Your task to perform on an android device: add a contact in the contacts app Image 0: 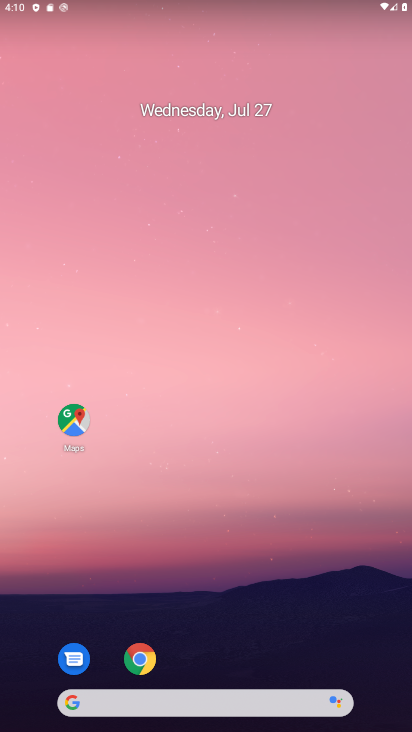
Step 0: drag from (189, 651) to (247, 191)
Your task to perform on an android device: add a contact in the contacts app Image 1: 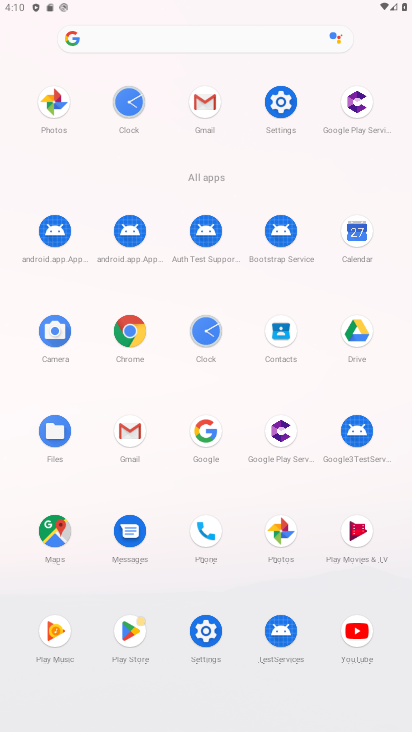
Step 1: click (281, 336)
Your task to perform on an android device: add a contact in the contacts app Image 2: 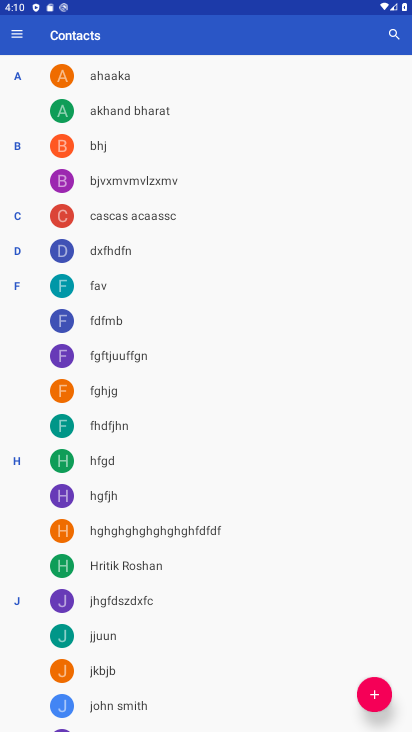
Step 2: click (365, 700)
Your task to perform on an android device: add a contact in the contacts app Image 3: 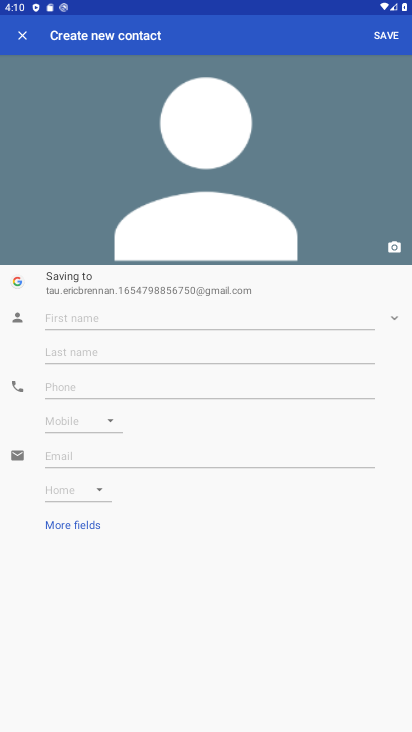
Step 3: click (246, 316)
Your task to perform on an android device: add a contact in the contacts app Image 4: 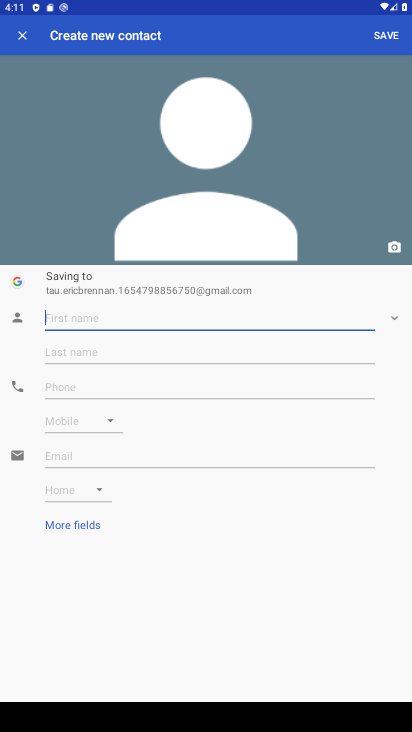
Step 4: type "abhijeet"
Your task to perform on an android device: add a contact in the contacts app Image 5: 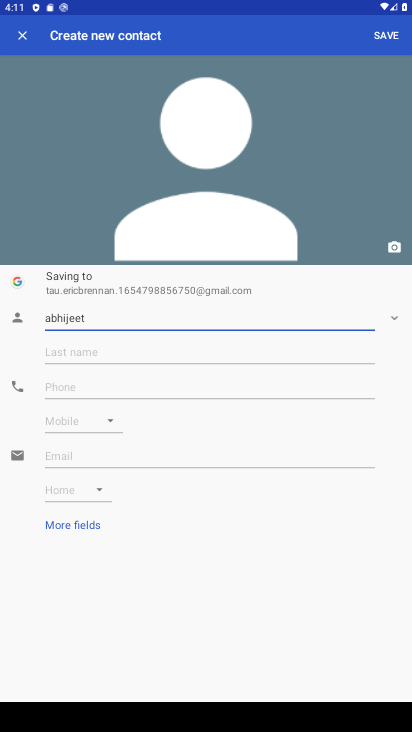
Step 5: click (310, 379)
Your task to perform on an android device: add a contact in the contacts app Image 6: 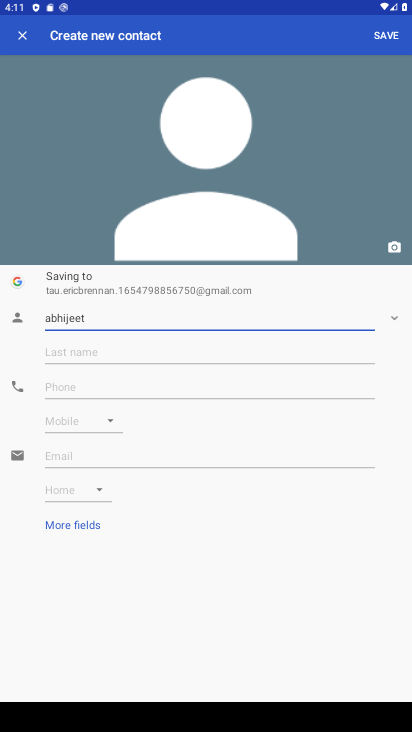
Step 6: click (310, 379)
Your task to perform on an android device: add a contact in the contacts app Image 7: 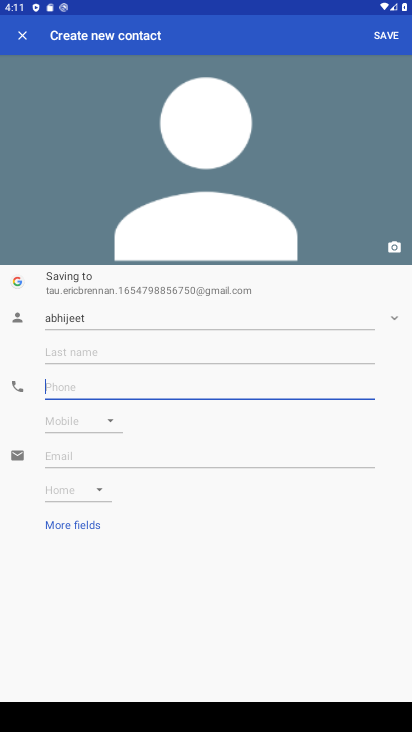
Step 7: click (310, 379)
Your task to perform on an android device: add a contact in the contacts app Image 8: 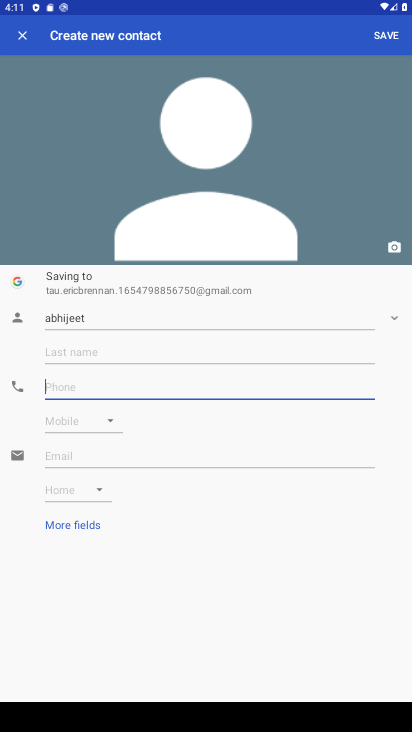
Step 8: click (310, 379)
Your task to perform on an android device: add a contact in the contacts app Image 9: 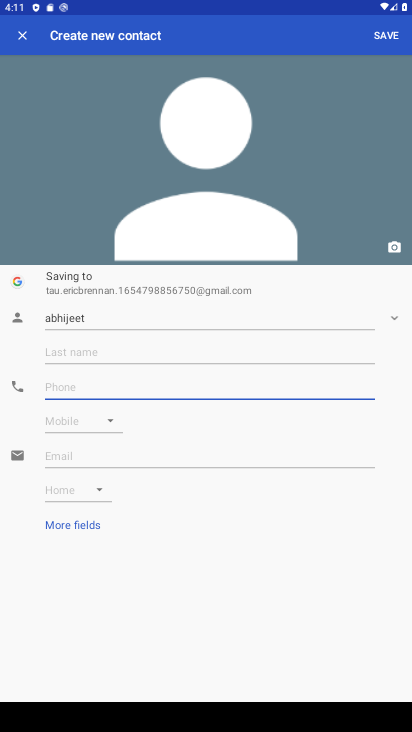
Step 9: click (318, 358)
Your task to perform on an android device: add a contact in the contacts app Image 10: 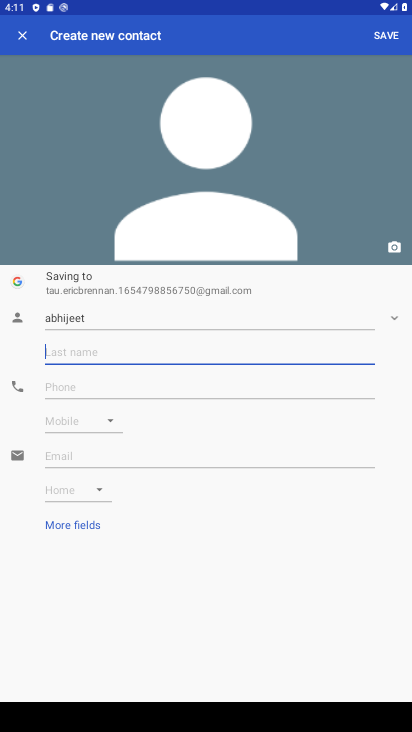
Step 10: type "985677455"
Your task to perform on an android device: add a contact in the contacts app Image 11: 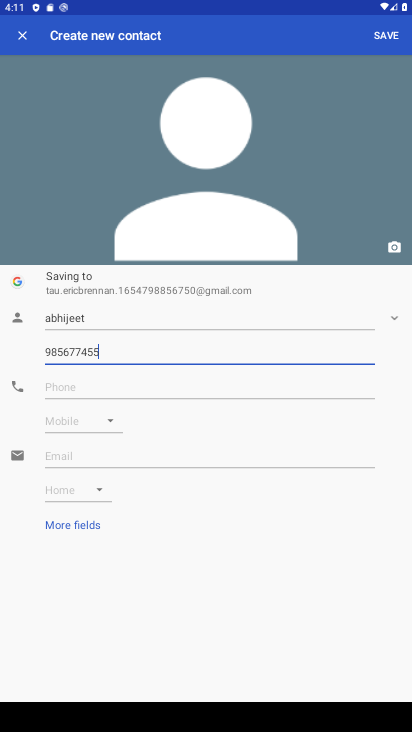
Step 11: click (388, 35)
Your task to perform on an android device: add a contact in the contacts app Image 12: 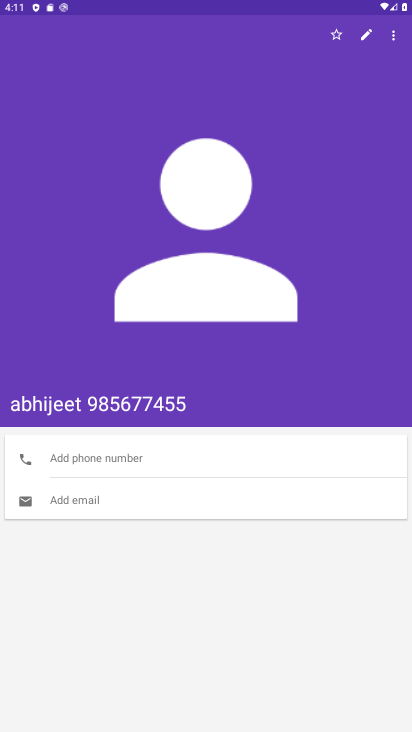
Step 12: click (270, 442)
Your task to perform on an android device: add a contact in the contacts app Image 13: 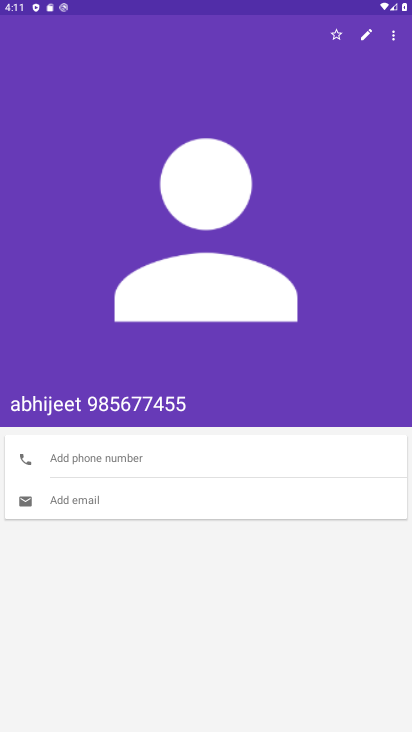
Step 13: click (270, 442)
Your task to perform on an android device: add a contact in the contacts app Image 14: 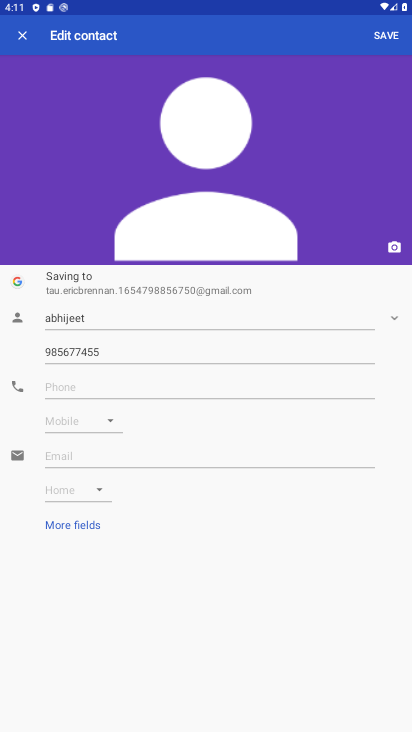
Step 14: click (155, 382)
Your task to perform on an android device: add a contact in the contacts app Image 15: 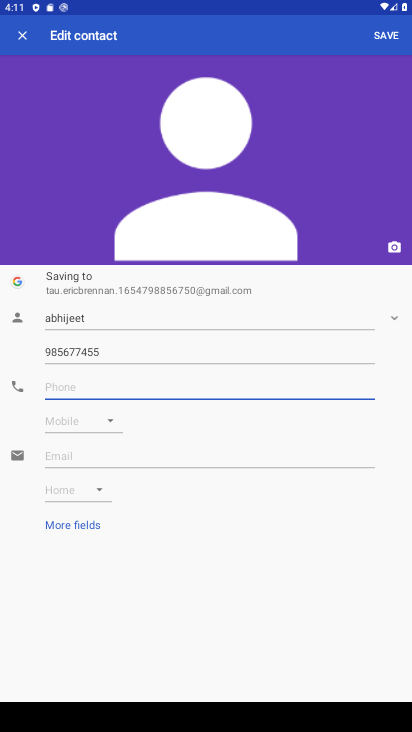
Step 15: click (154, 347)
Your task to perform on an android device: add a contact in the contacts app Image 16: 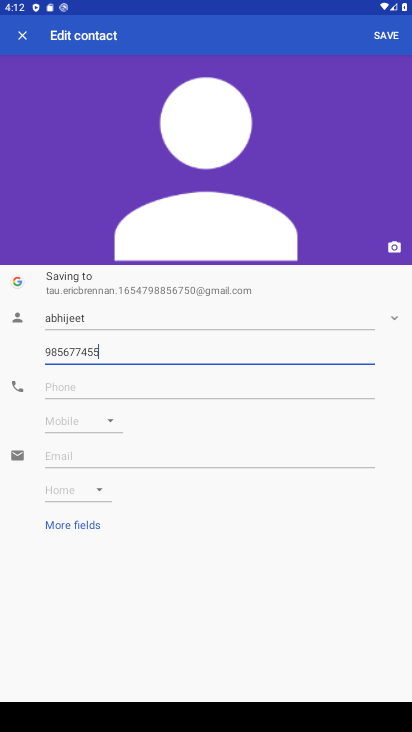
Step 16: click (155, 385)
Your task to perform on an android device: add a contact in the contacts app Image 17: 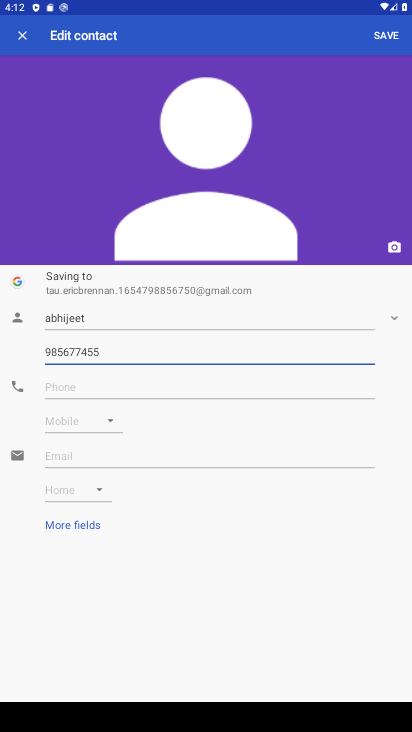
Step 17: click (155, 385)
Your task to perform on an android device: add a contact in the contacts app Image 18: 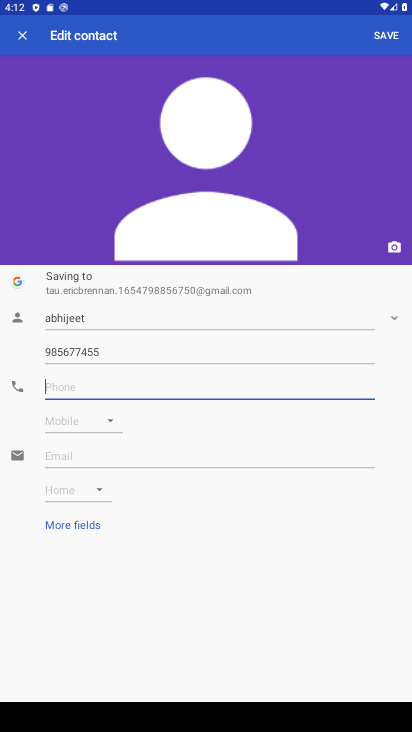
Step 18: click (155, 385)
Your task to perform on an android device: add a contact in the contacts app Image 19: 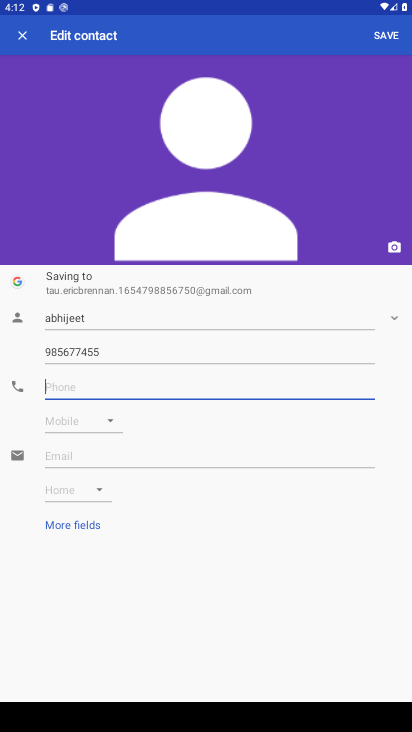
Step 19: type "569977332211"
Your task to perform on an android device: add a contact in the contacts app Image 20: 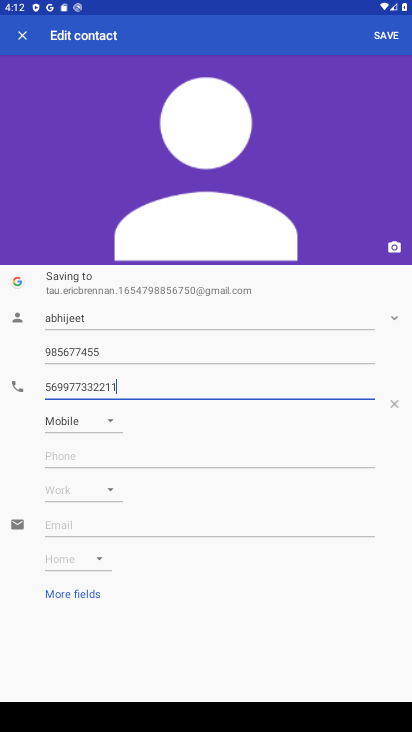
Step 20: click (399, 34)
Your task to perform on an android device: add a contact in the contacts app Image 21: 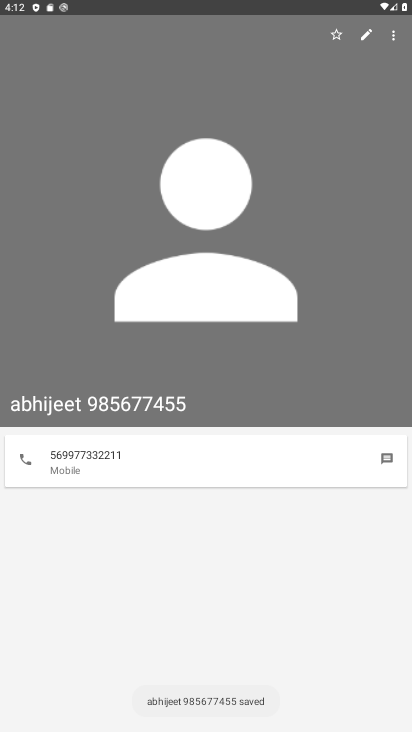
Step 21: task complete